Your task to perform on an android device: Open Youtube and go to the subscriptions tab Image 0: 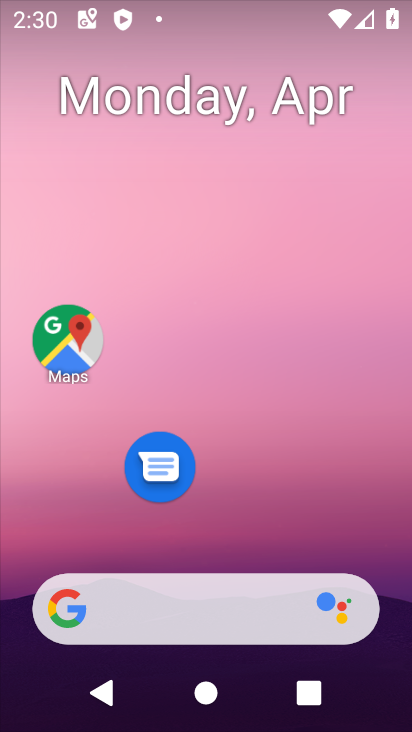
Step 0: drag from (267, 522) to (357, 1)
Your task to perform on an android device: Open Youtube and go to the subscriptions tab Image 1: 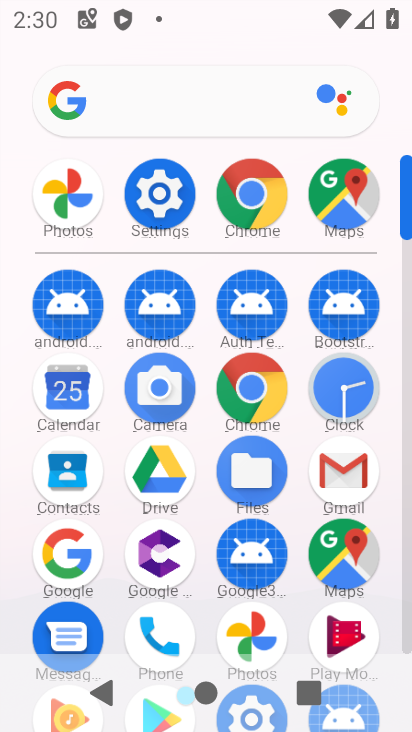
Step 1: drag from (303, 484) to (371, 187)
Your task to perform on an android device: Open Youtube and go to the subscriptions tab Image 2: 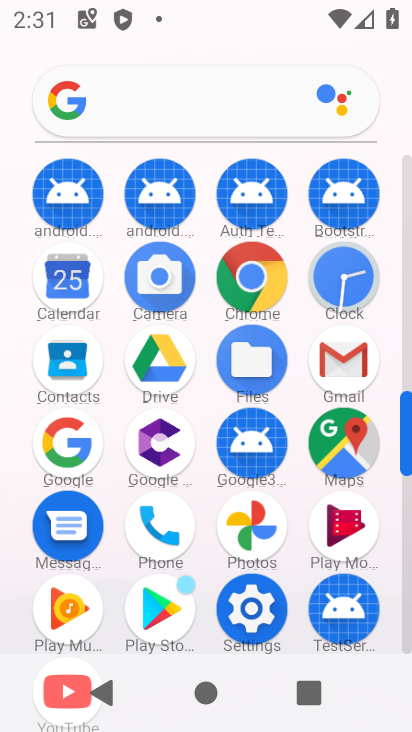
Step 2: drag from (94, 608) to (181, 318)
Your task to perform on an android device: Open Youtube and go to the subscriptions tab Image 3: 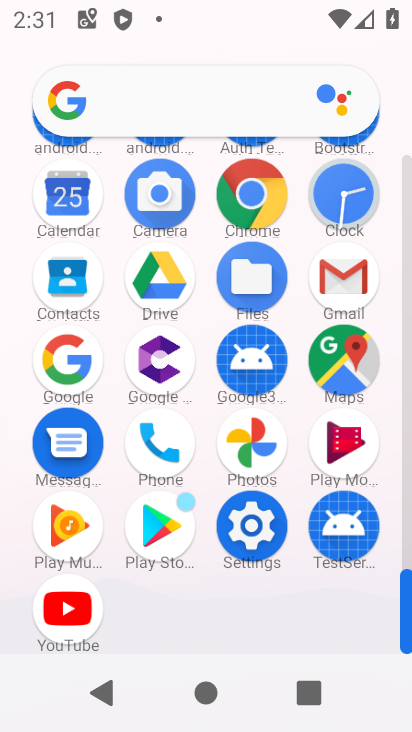
Step 3: click (53, 618)
Your task to perform on an android device: Open Youtube and go to the subscriptions tab Image 4: 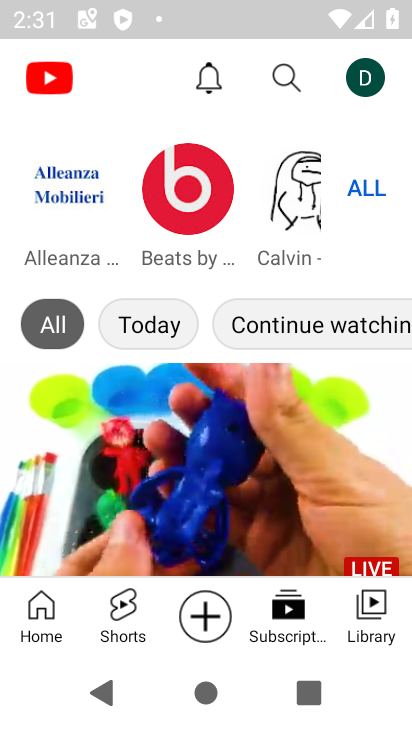
Step 4: click (284, 607)
Your task to perform on an android device: Open Youtube and go to the subscriptions tab Image 5: 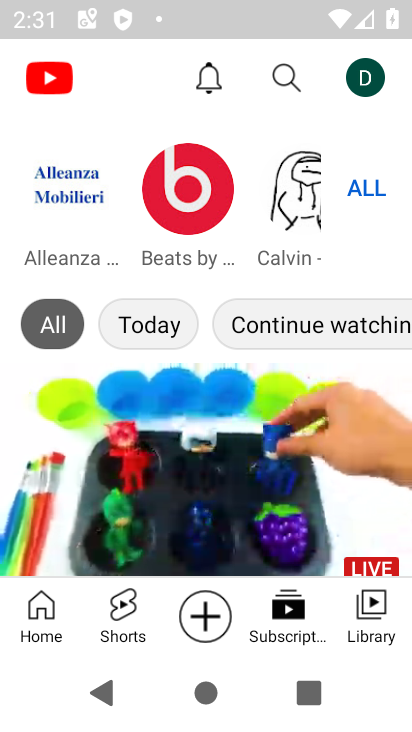
Step 5: task complete